Your task to perform on an android device: Open Yahoo.com Image 0: 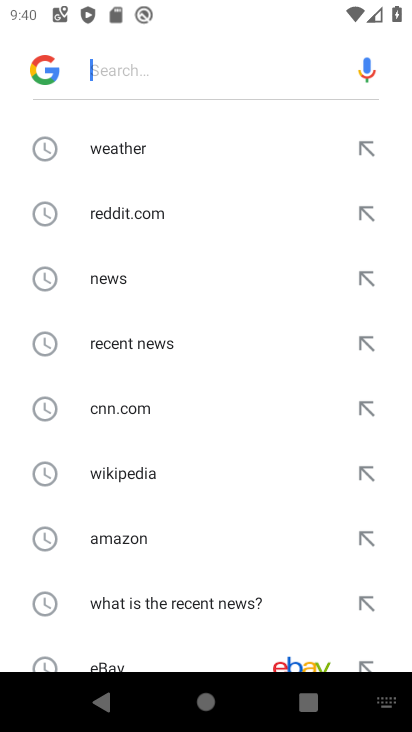
Step 0: press home button
Your task to perform on an android device: Open Yahoo.com Image 1: 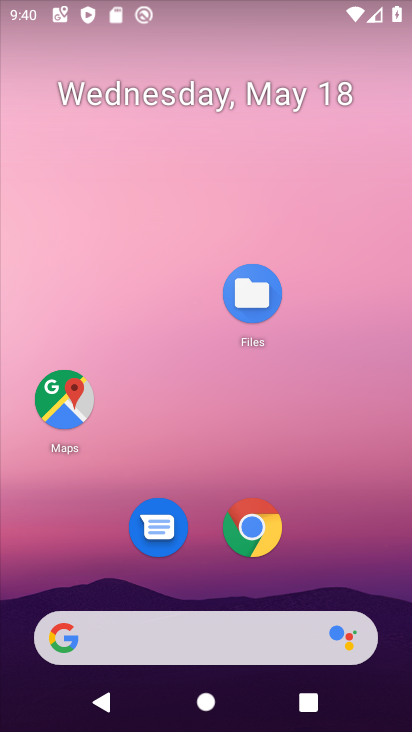
Step 1: drag from (325, 572) to (367, 256)
Your task to perform on an android device: Open Yahoo.com Image 2: 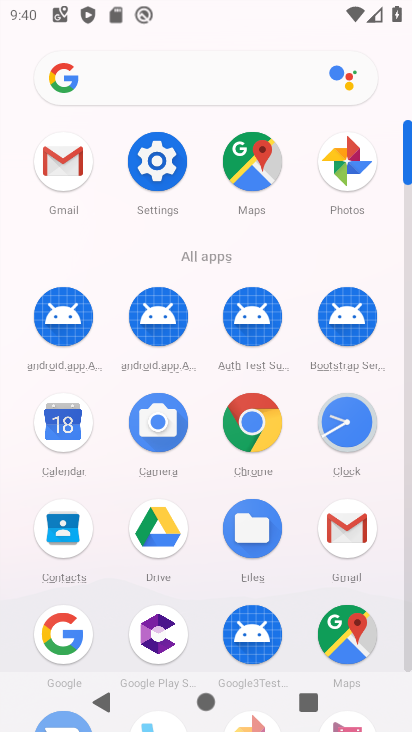
Step 2: click (250, 423)
Your task to perform on an android device: Open Yahoo.com Image 3: 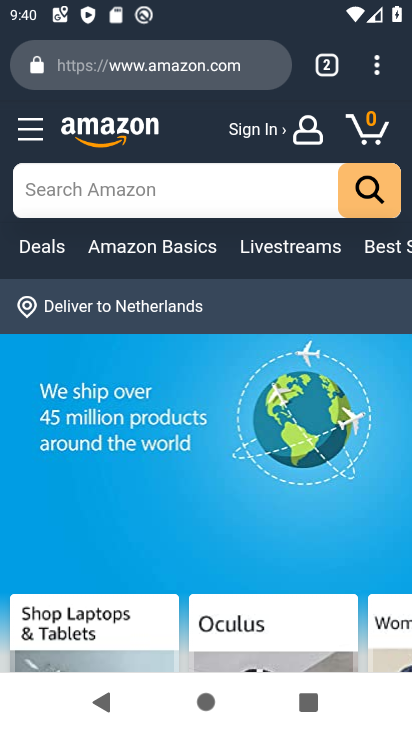
Step 3: click (323, 55)
Your task to perform on an android device: Open Yahoo.com Image 4: 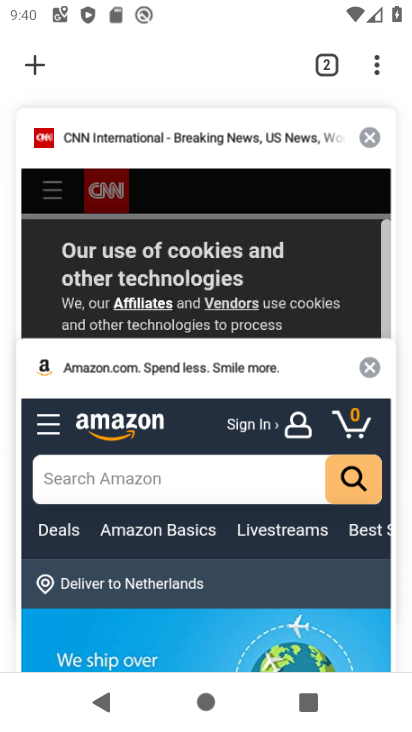
Step 4: click (32, 53)
Your task to perform on an android device: Open Yahoo.com Image 5: 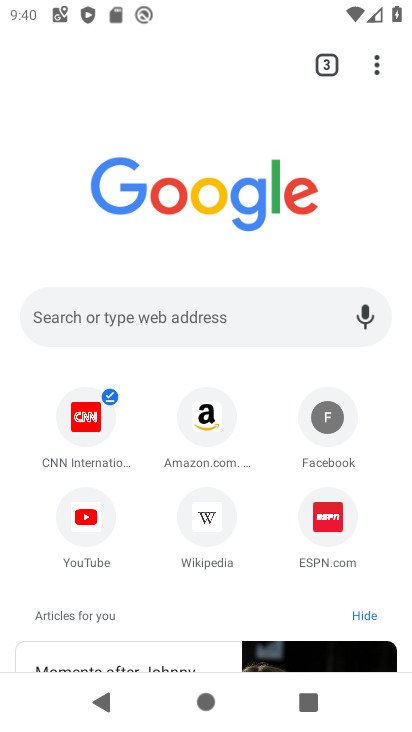
Step 5: click (140, 317)
Your task to perform on an android device: Open Yahoo.com Image 6: 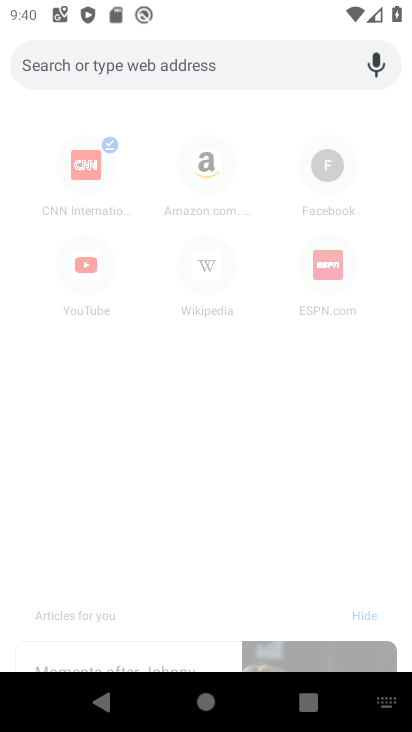
Step 6: type "Yahoo.com"
Your task to perform on an android device: Open Yahoo.com Image 7: 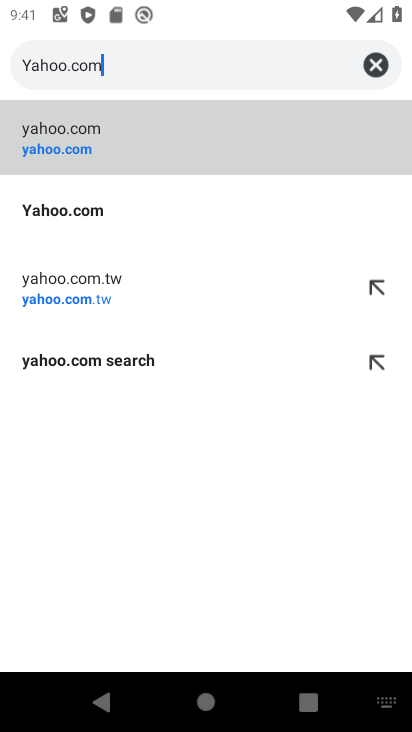
Step 7: click (122, 148)
Your task to perform on an android device: Open Yahoo.com Image 8: 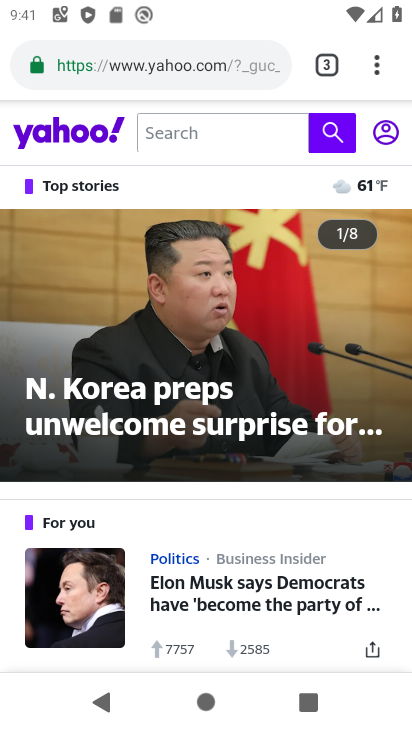
Step 8: task complete